Your task to perform on an android device: Is it going to rain this weekend? Image 0: 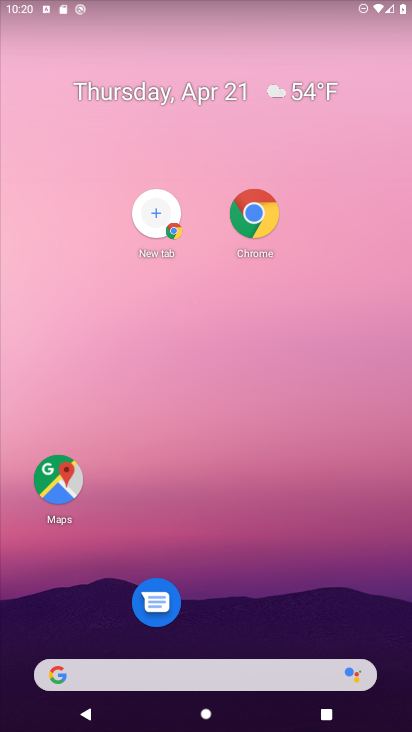
Step 0: drag from (221, 633) to (235, 45)
Your task to perform on an android device: Is it going to rain this weekend? Image 1: 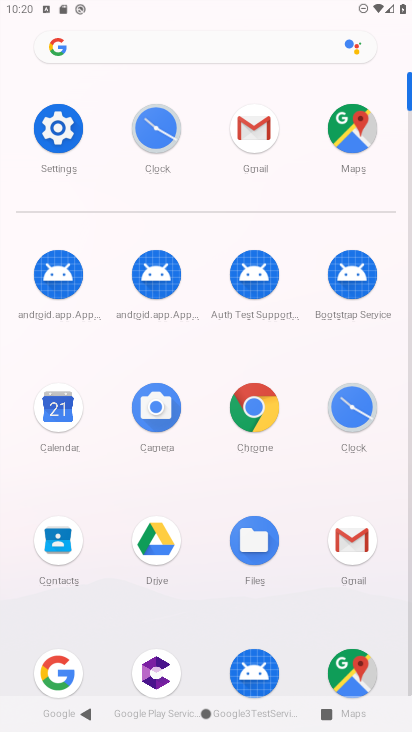
Step 1: click (63, 398)
Your task to perform on an android device: Is it going to rain this weekend? Image 2: 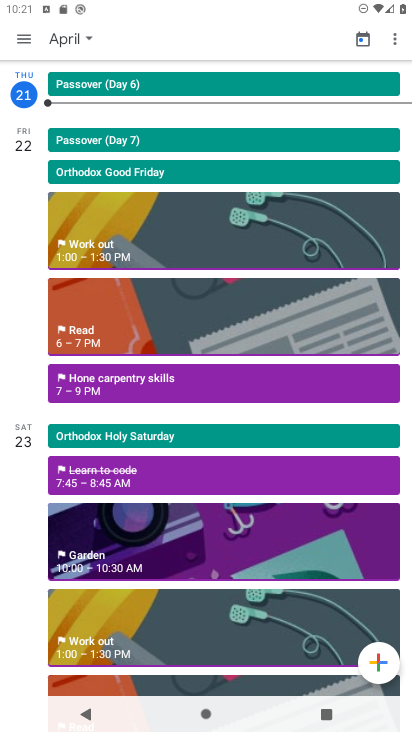
Step 2: press home button
Your task to perform on an android device: Is it going to rain this weekend? Image 3: 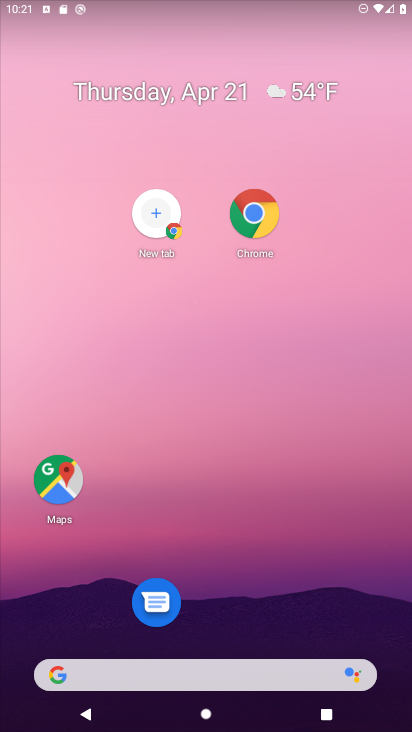
Step 3: click (295, 86)
Your task to perform on an android device: Is it going to rain this weekend? Image 4: 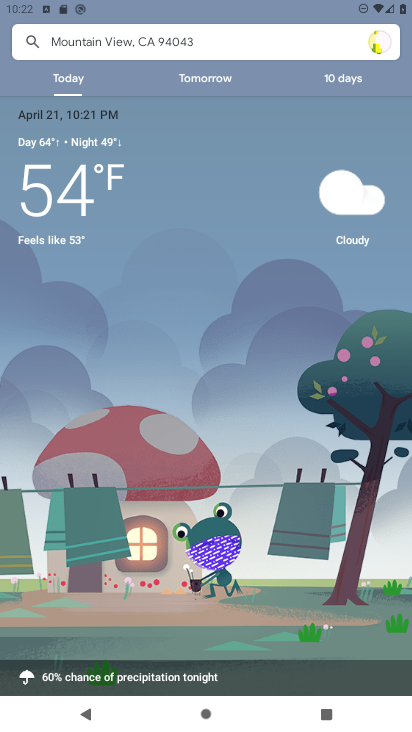
Step 4: click (337, 89)
Your task to perform on an android device: Is it going to rain this weekend? Image 5: 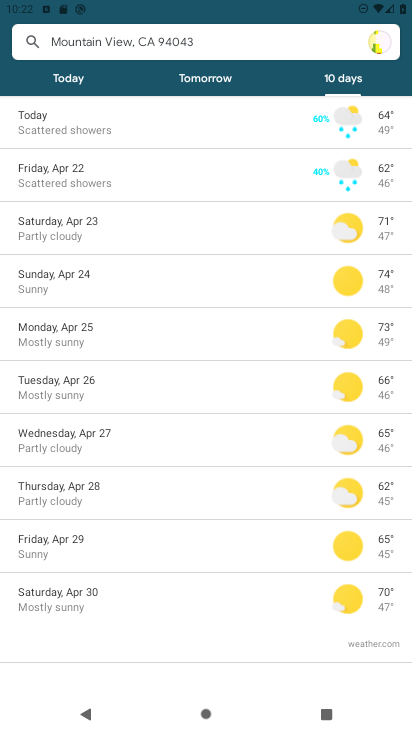
Step 5: click (67, 241)
Your task to perform on an android device: Is it going to rain this weekend? Image 6: 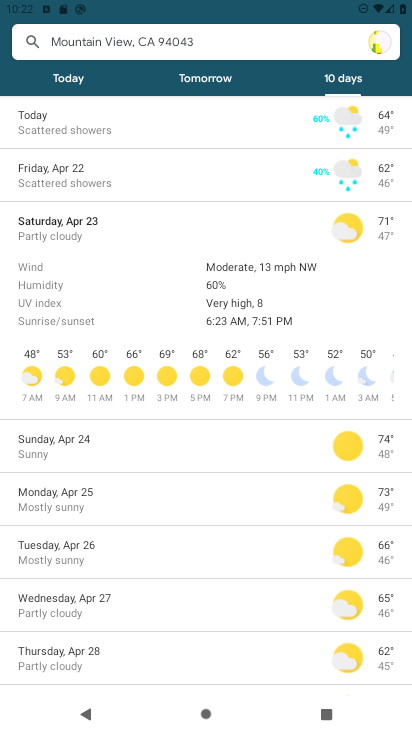
Step 6: task complete